Your task to perform on an android device: show emergency info Image 0: 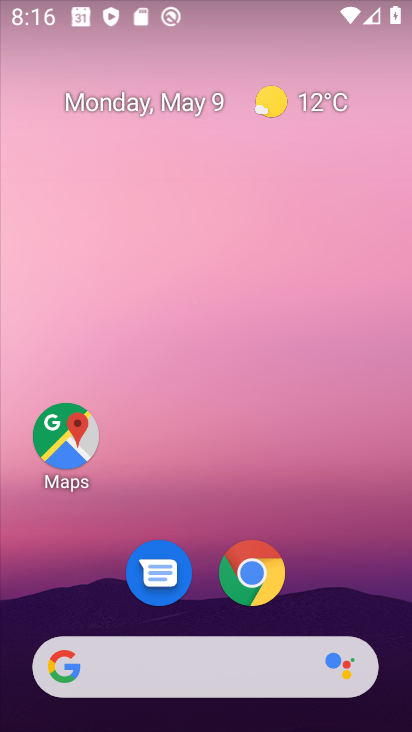
Step 0: drag from (293, 597) to (293, 156)
Your task to perform on an android device: show emergency info Image 1: 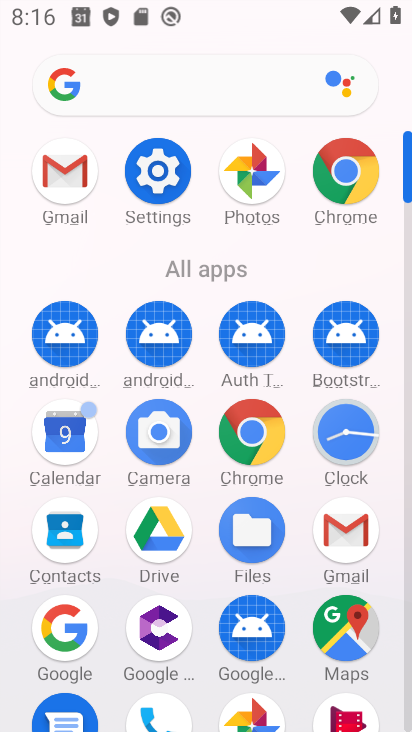
Step 1: click (144, 189)
Your task to perform on an android device: show emergency info Image 2: 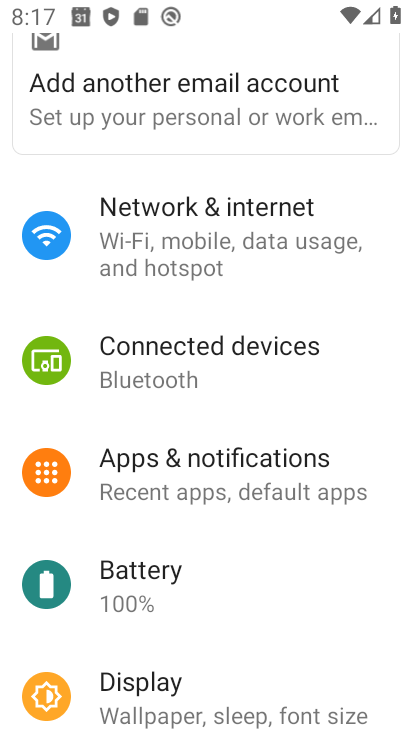
Step 2: drag from (135, 541) to (136, 117)
Your task to perform on an android device: show emergency info Image 3: 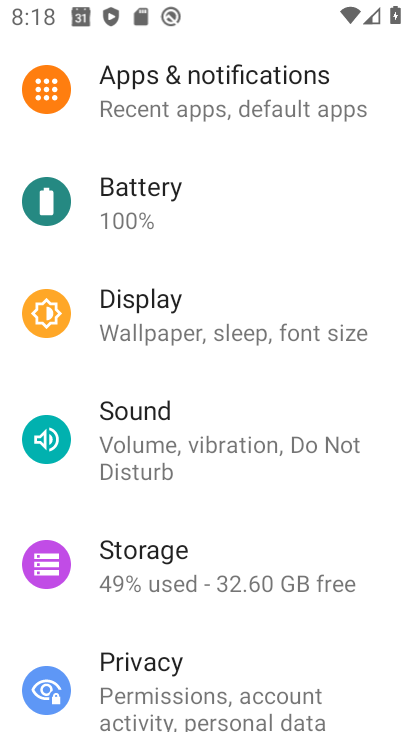
Step 3: drag from (258, 562) to (244, 82)
Your task to perform on an android device: show emergency info Image 4: 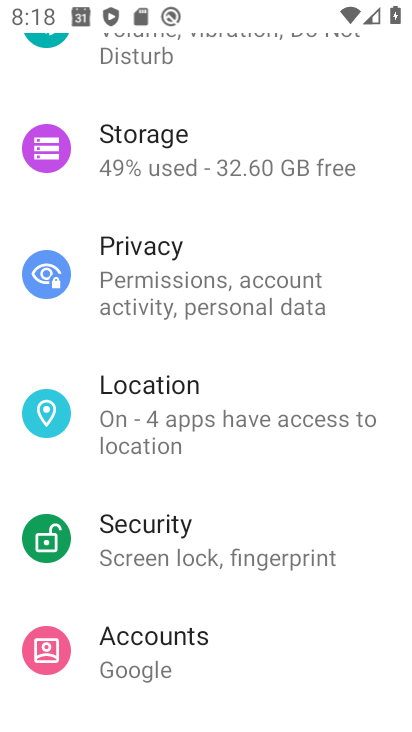
Step 4: drag from (217, 565) to (206, 121)
Your task to perform on an android device: show emergency info Image 5: 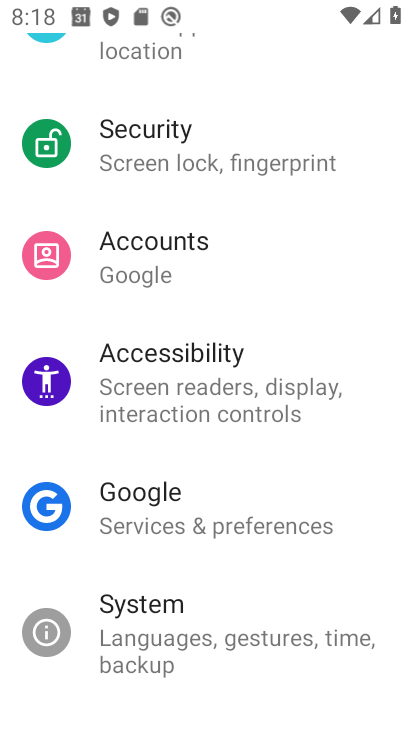
Step 5: drag from (180, 635) to (180, 168)
Your task to perform on an android device: show emergency info Image 6: 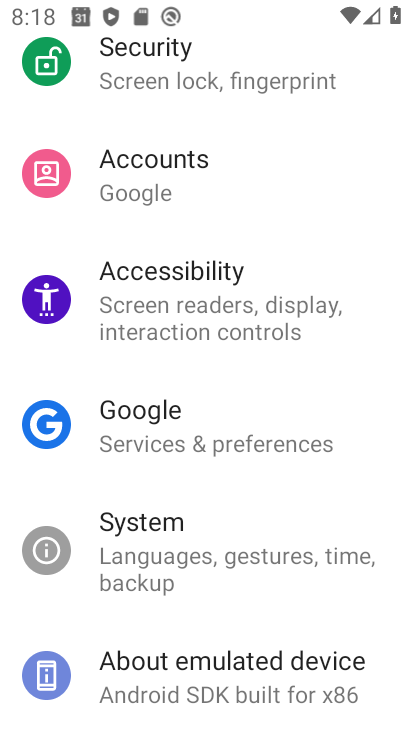
Step 6: click (177, 683)
Your task to perform on an android device: show emergency info Image 7: 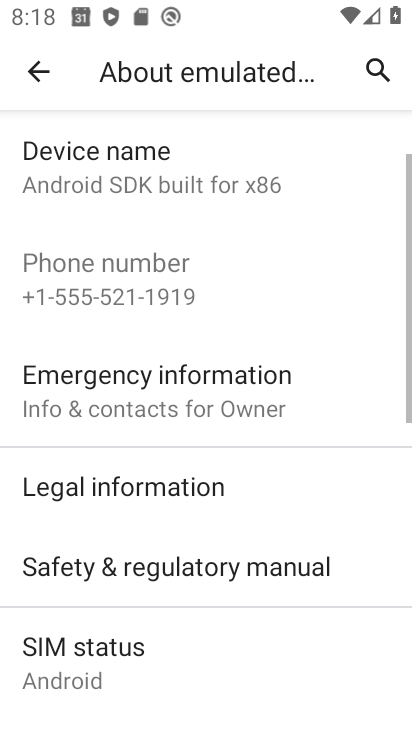
Step 7: click (198, 381)
Your task to perform on an android device: show emergency info Image 8: 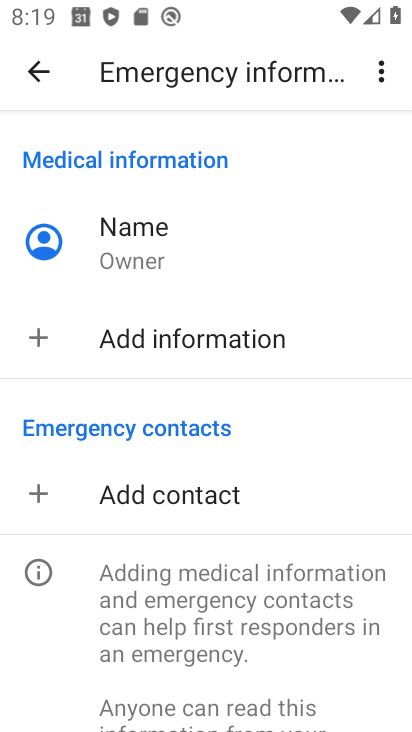
Step 8: task complete